Your task to perform on an android device: View the shopping cart on costco. Search for "energizer triple a" on costco, select the first entry, and add it to the cart. Image 0: 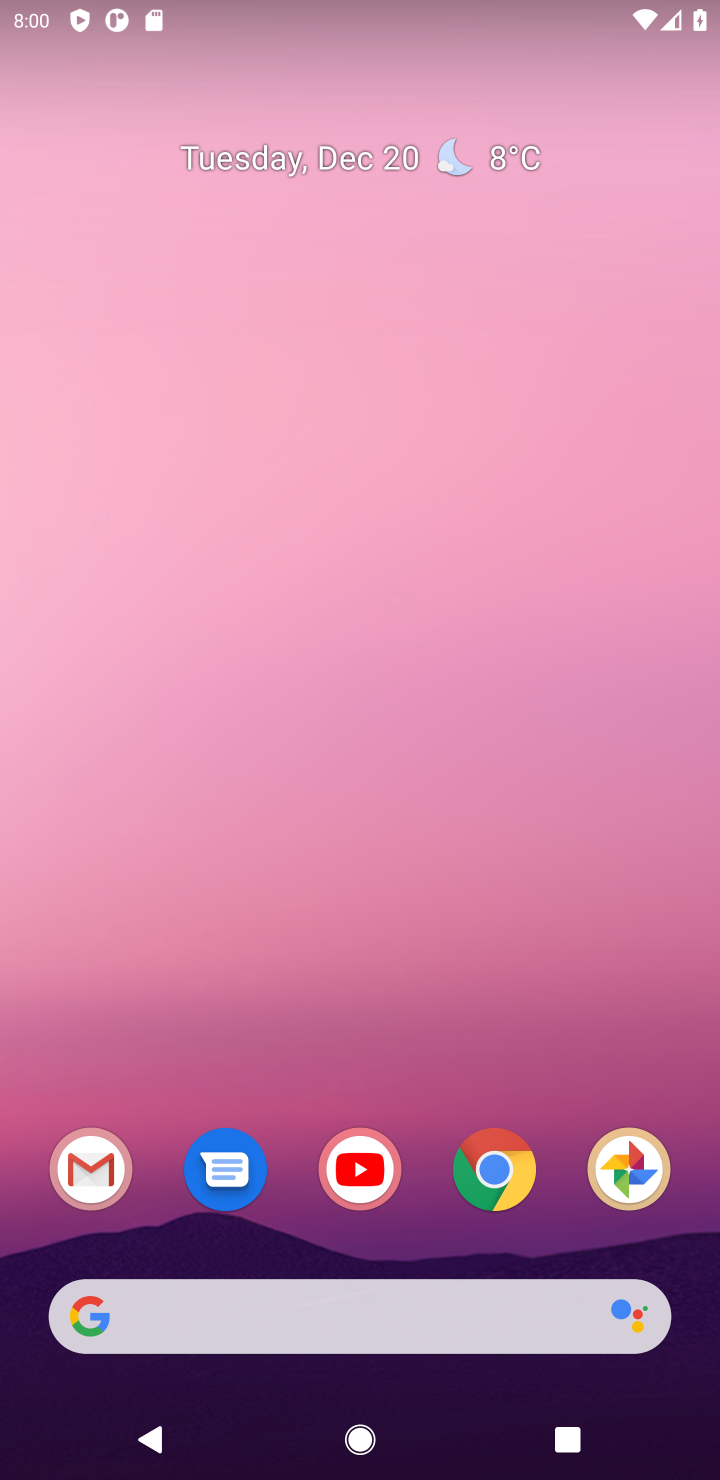
Step 0: click (480, 1184)
Your task to perform on an android device: View the shopping cart on costco. Search for "energizer triple a" on costco, select the first entry, and add it to the cart. Image 1: 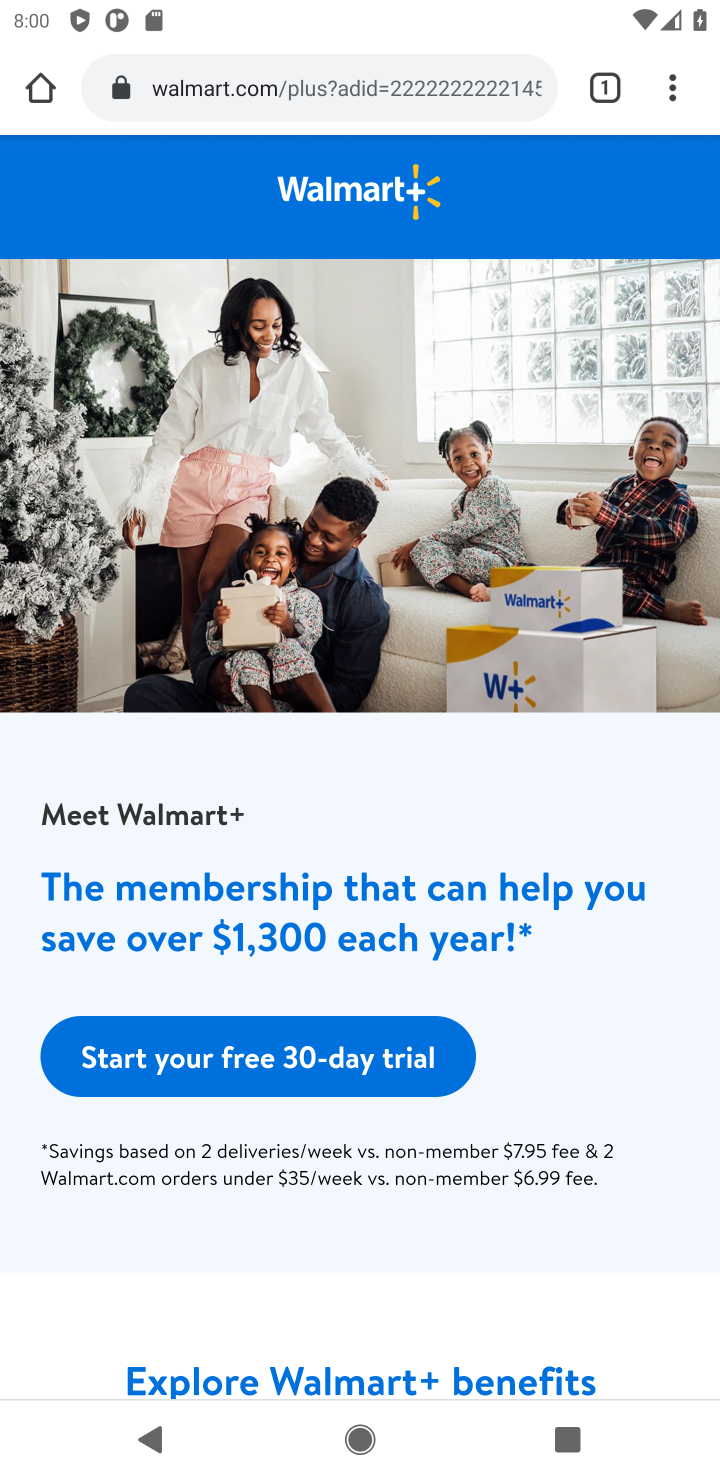
Step 1: click (311, 98)
Your task to perform on an android device: View the shopping cart on costco. Search for "energizer triple a" on costco, select the first entry, and add it to the cart. Image 2: 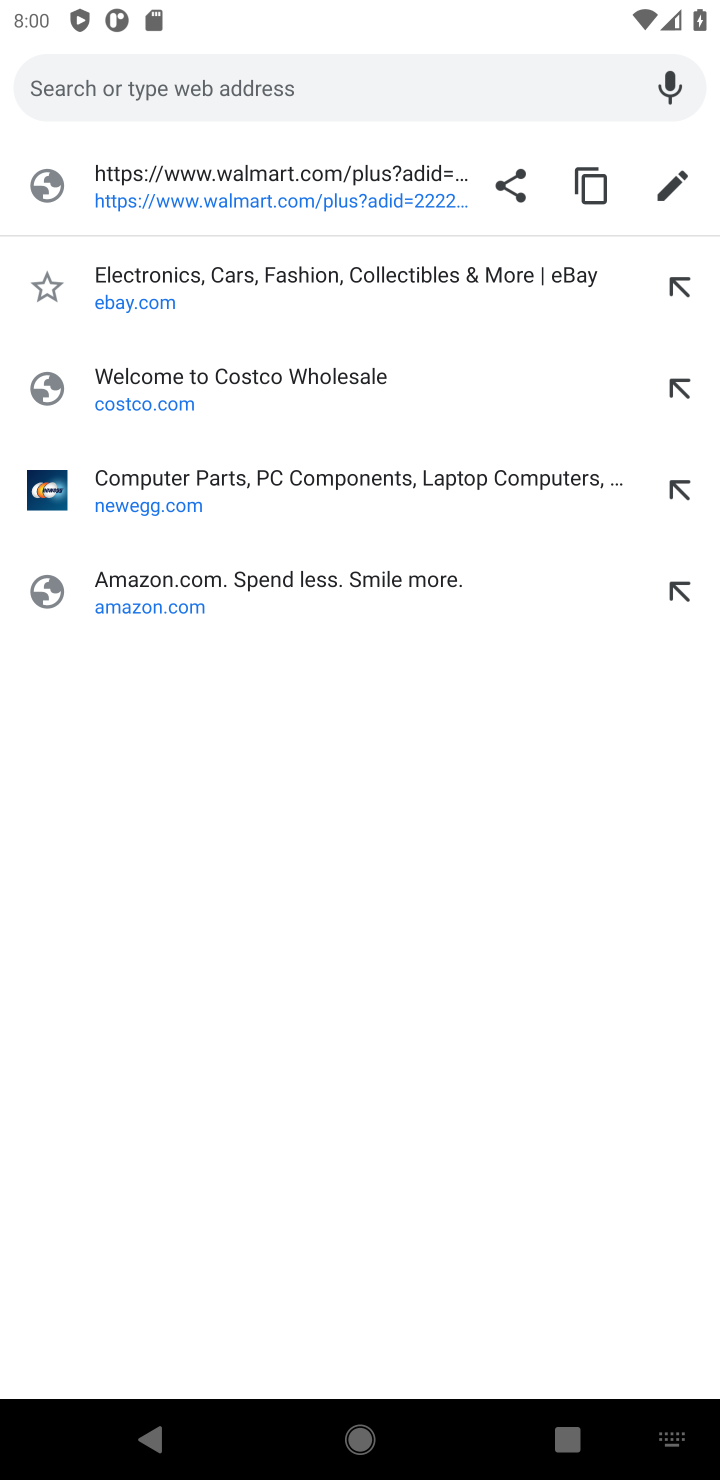
Step 2: click (208, 418)
Your task to perform on an android device: View the shopping cart on costco. Search for "energizer triple a" on costco, select the first entry, and add it to the cart. Image 3: 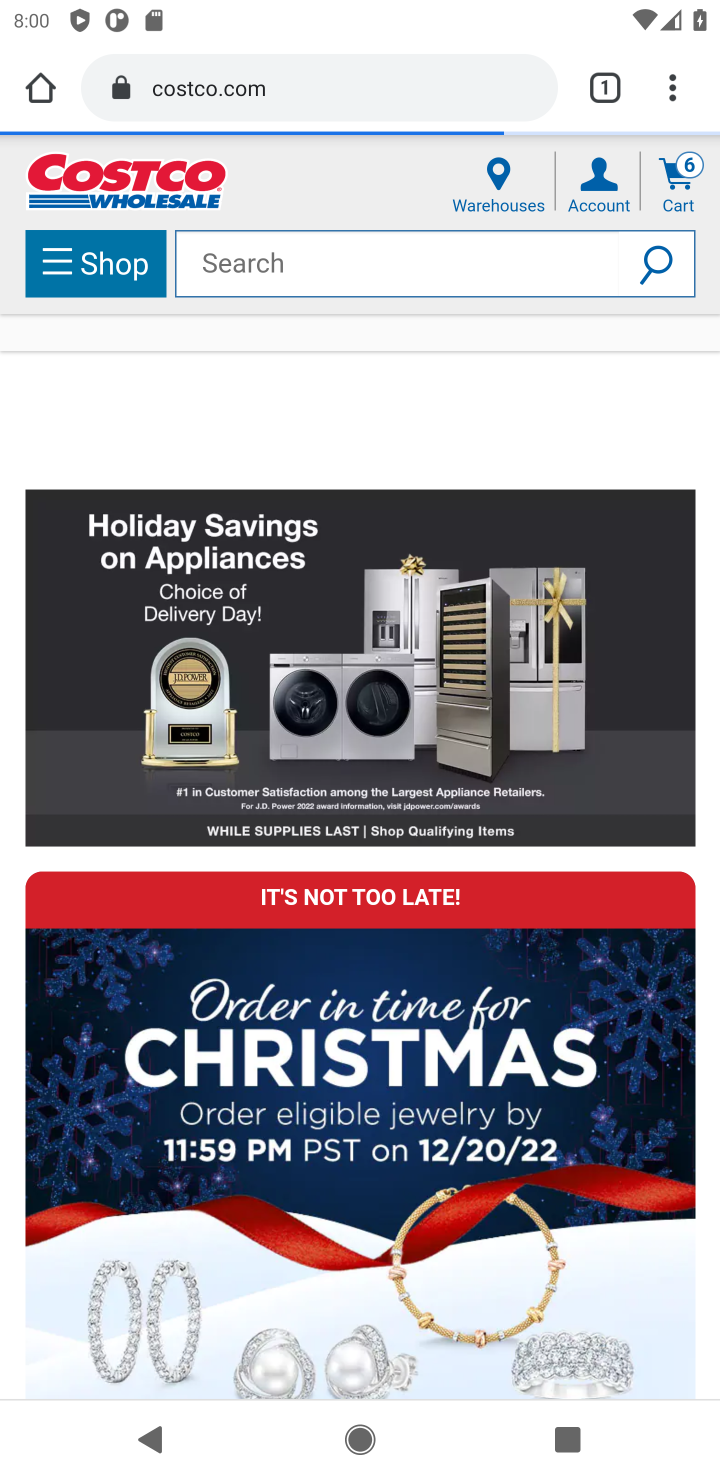
Step 3: click (331, 266)
Your task to perform on an android device: View the shopping cart on costco. Search for "energizer triple a" on costco, select the first entry, and add it to the cart. Image 4: 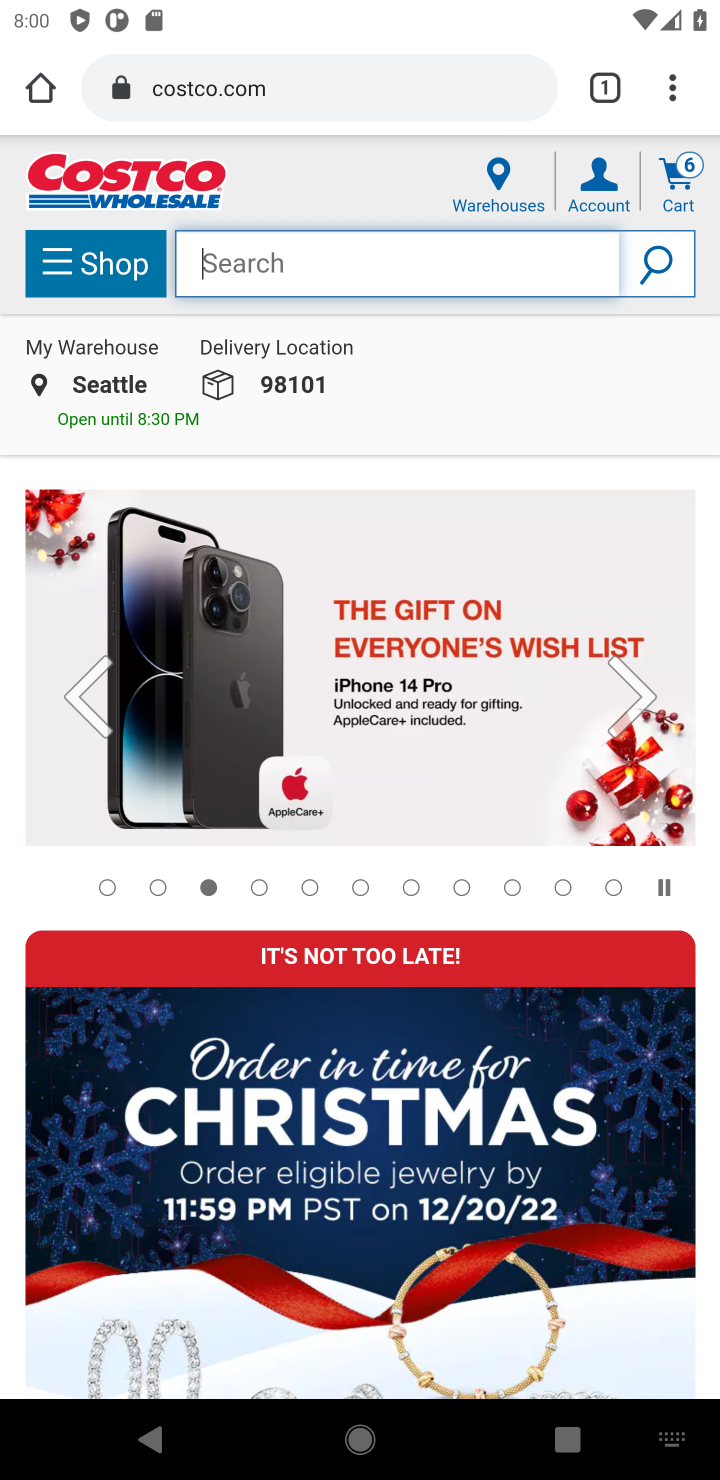
Step 4: type "energizer triple a"
Your task to perform on an android device: View the shopping cart on costco. Search for "energizer triple a" on costco, select the first entry, and add it to the cart. Image 5: 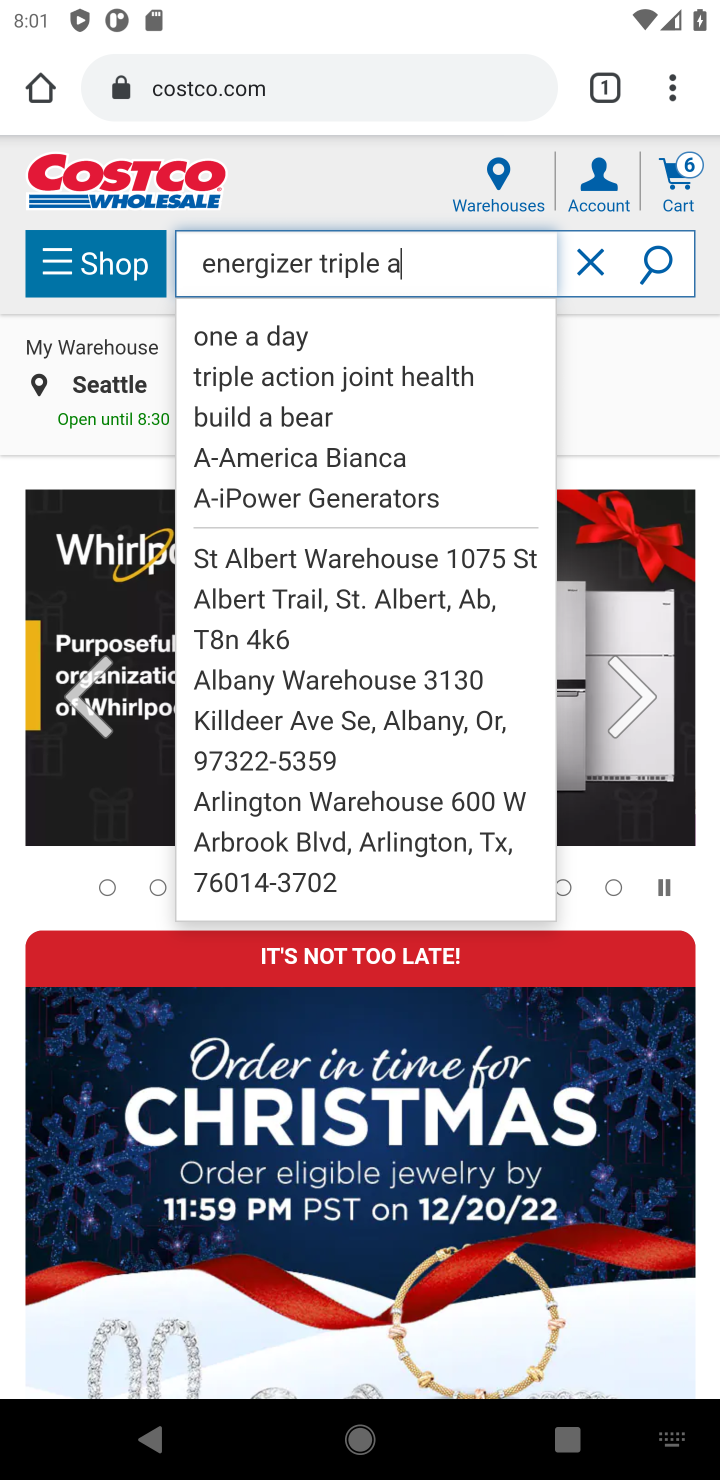
Step 5: click (670, 255)
Your task to perform on an android device: View the shopping cart on costco. Search for "energizer triple a" on costco, select the first entry, and add it to the cart. Image 6: 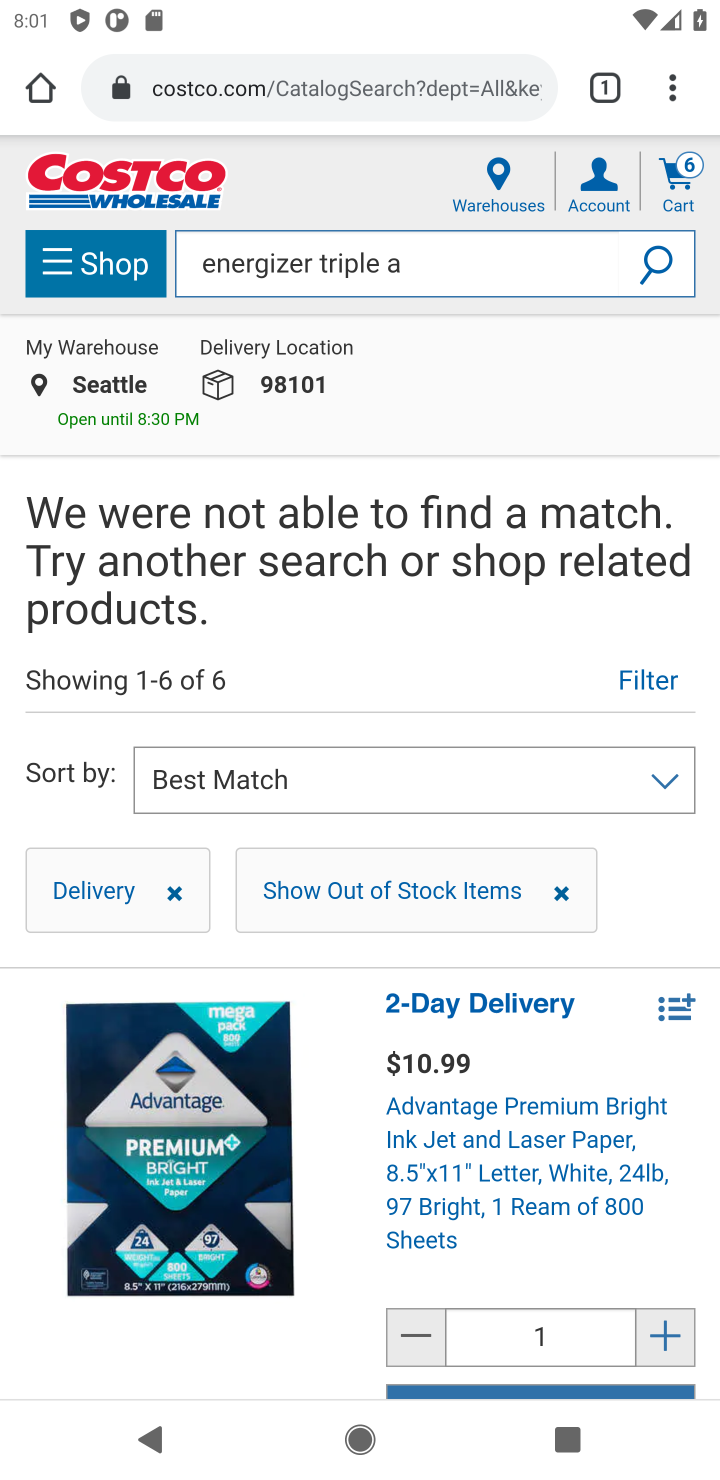
Step 6: click (509, 1007)
Your task to perform on an android device: View the shopping cart on costco. Search for "energizer triple a" on costco, select the first entry, and add it to the cart. Image 7: 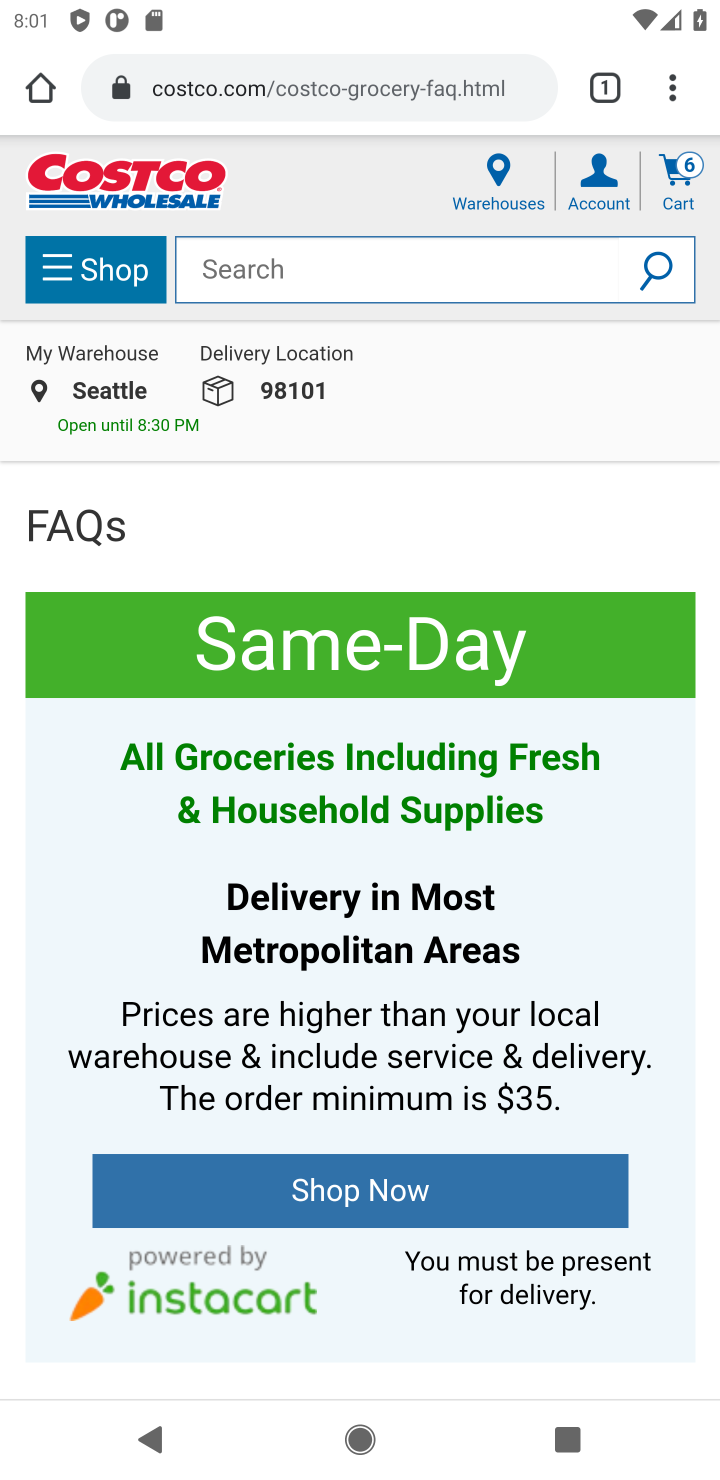
Step 7: task complete